Your task to perform on an android device: turn on airplane mode Image 0: 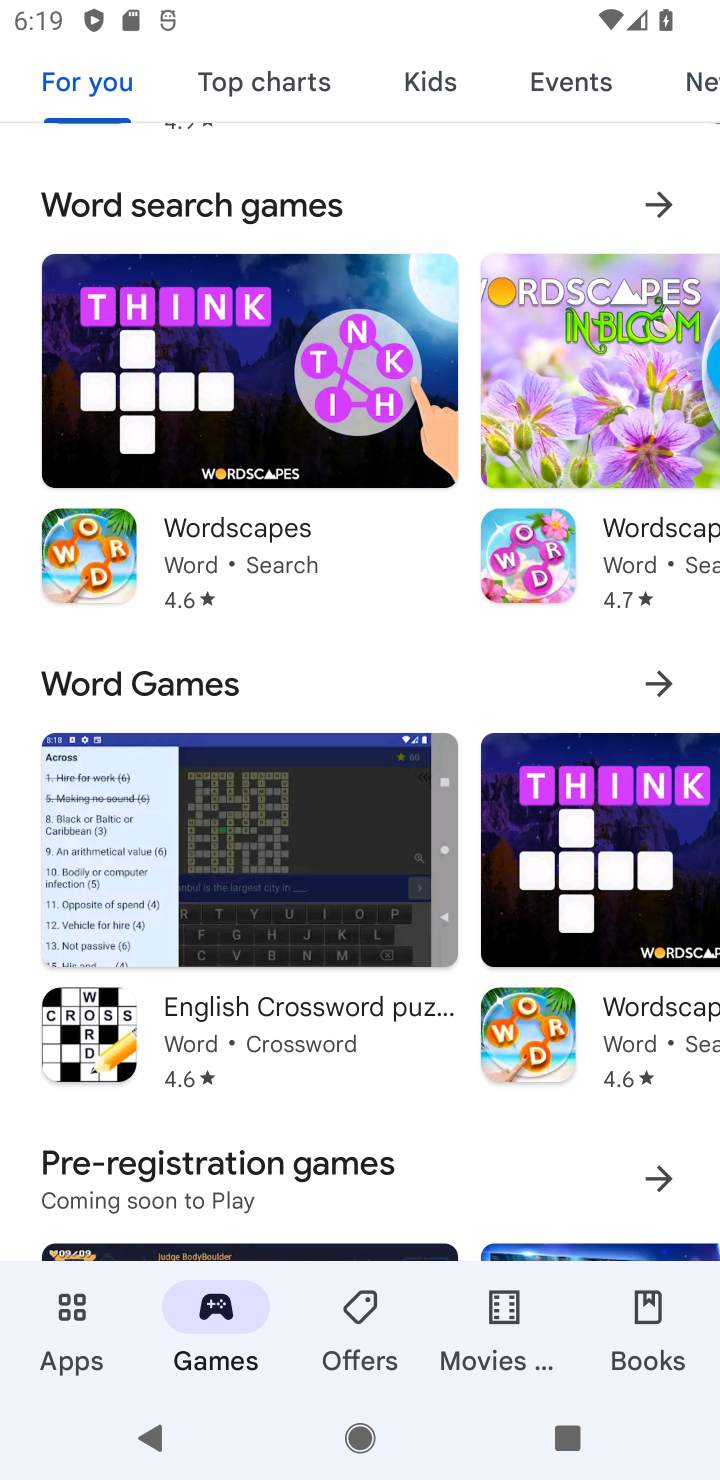
Step 0: press home button
Your task to perform on an android device: turn on airplane mode Image 1: 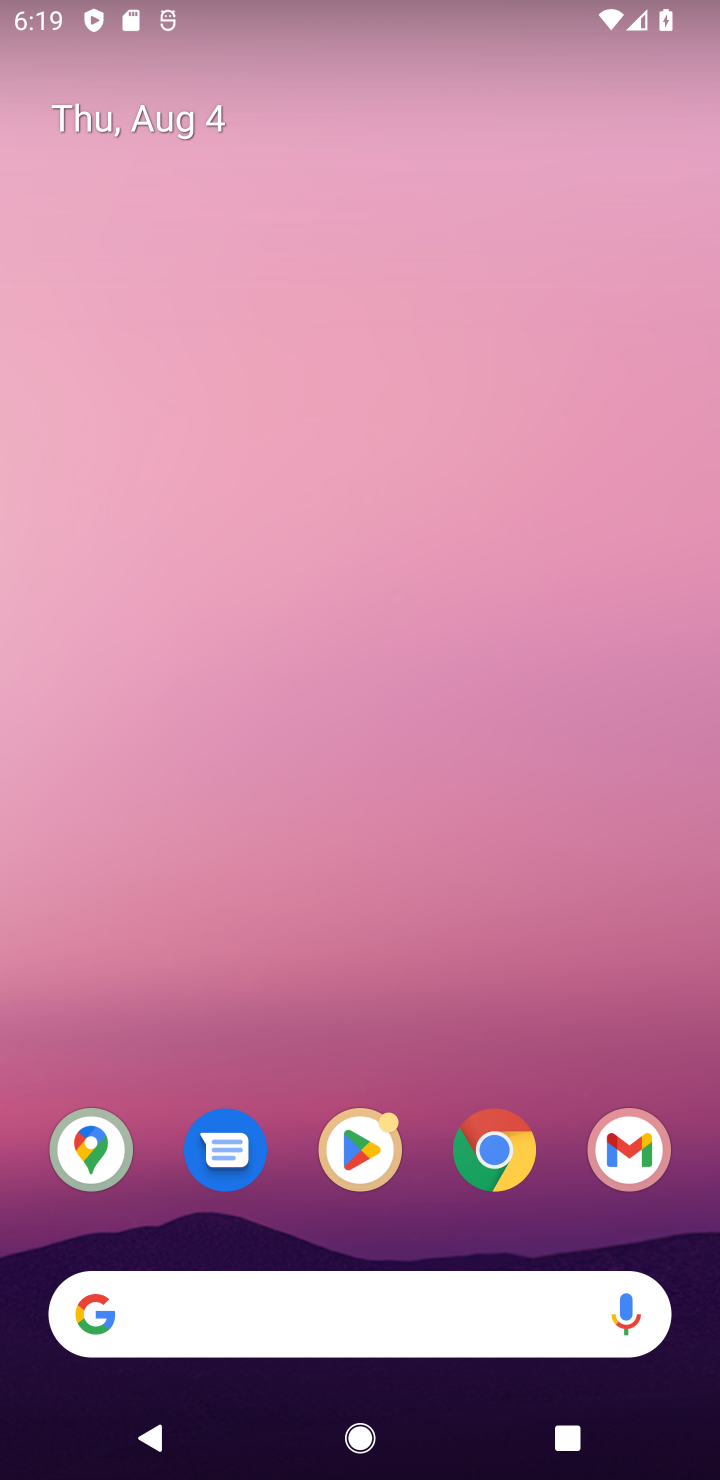
Step 1: drag from (340, 1305) to (366, 2)
Your task to perform on an android device: turn on airplane mode Image 2: 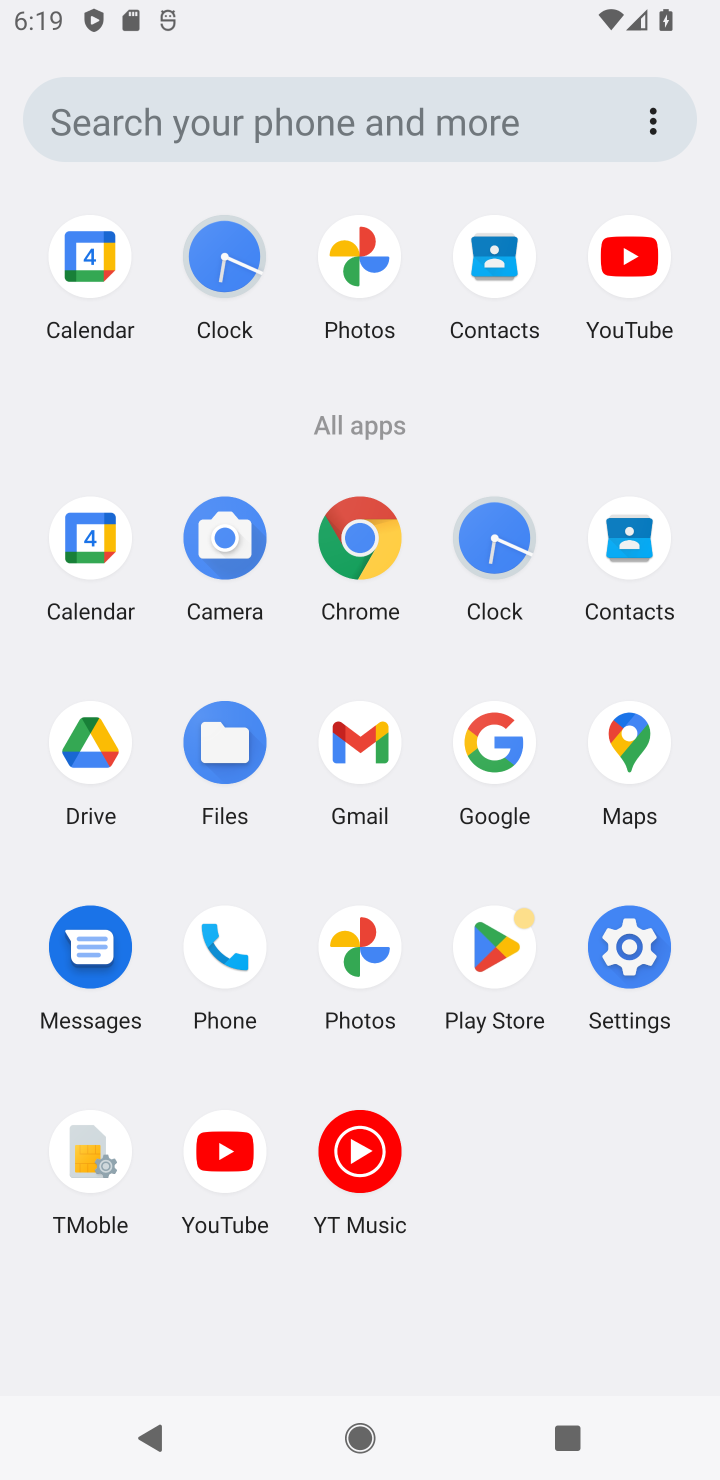
Step 2: click (619, 934)
Your task to perform on an android device: turn on airplane mode Image 3: 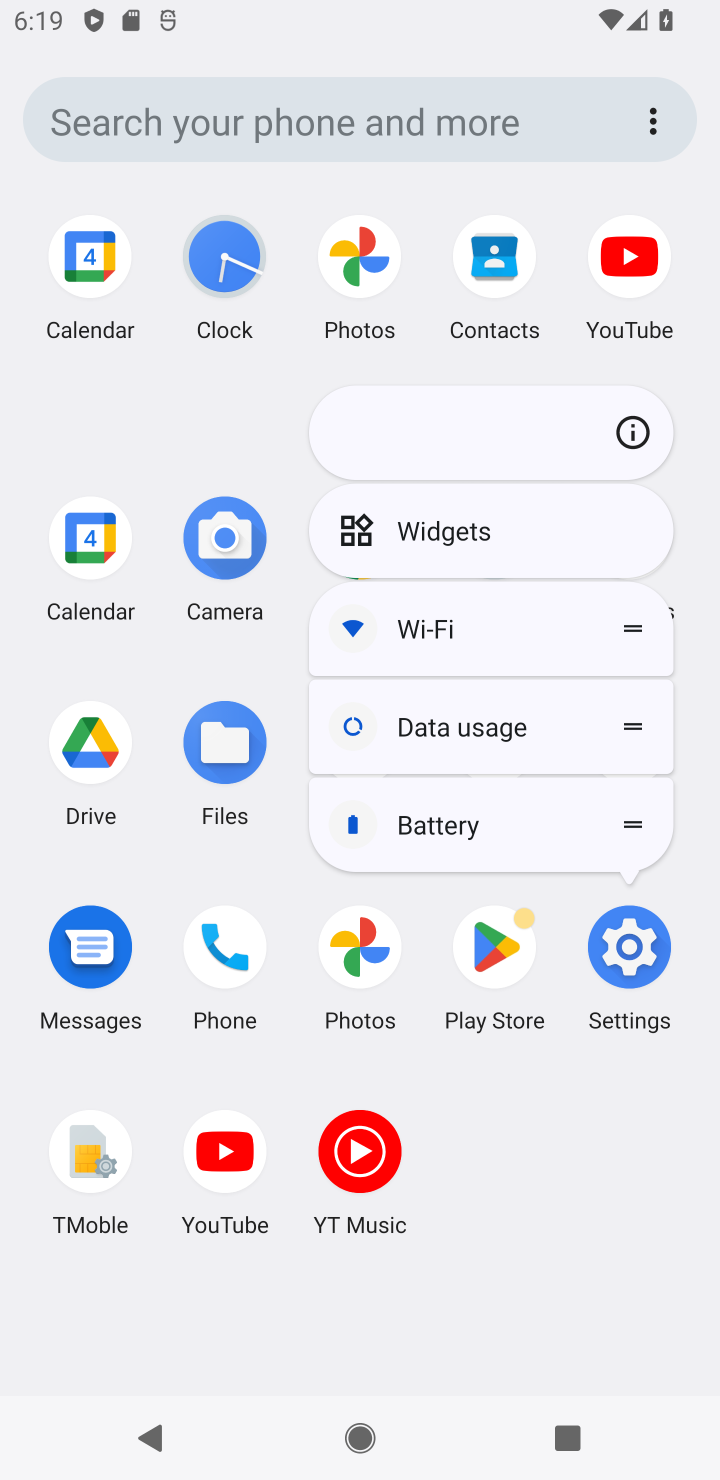
Step 3: click (654, 925)
Your task to perform on an android device: turn on airplane mode Image 4: 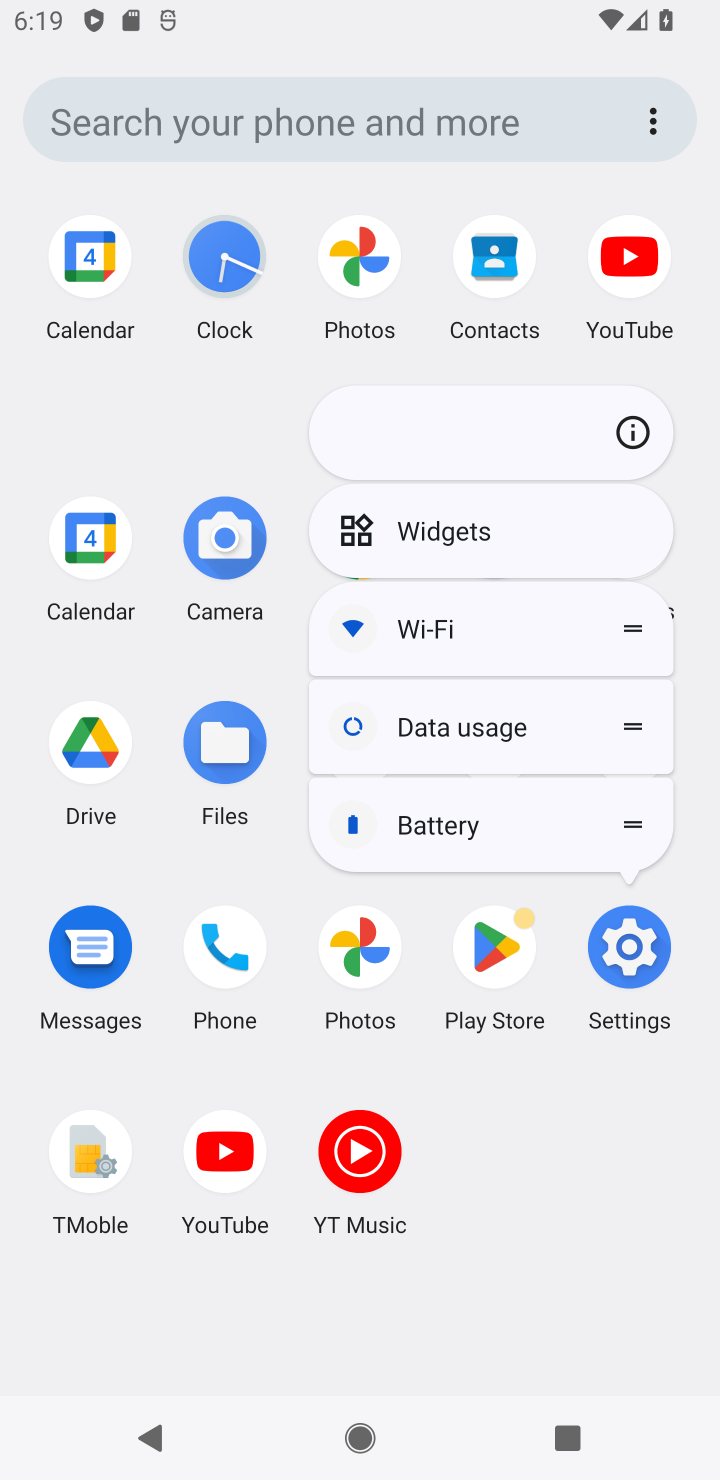
Step 4: click (635, 924)
Your task to perform on an android device: turn on airplane mode Image 5: 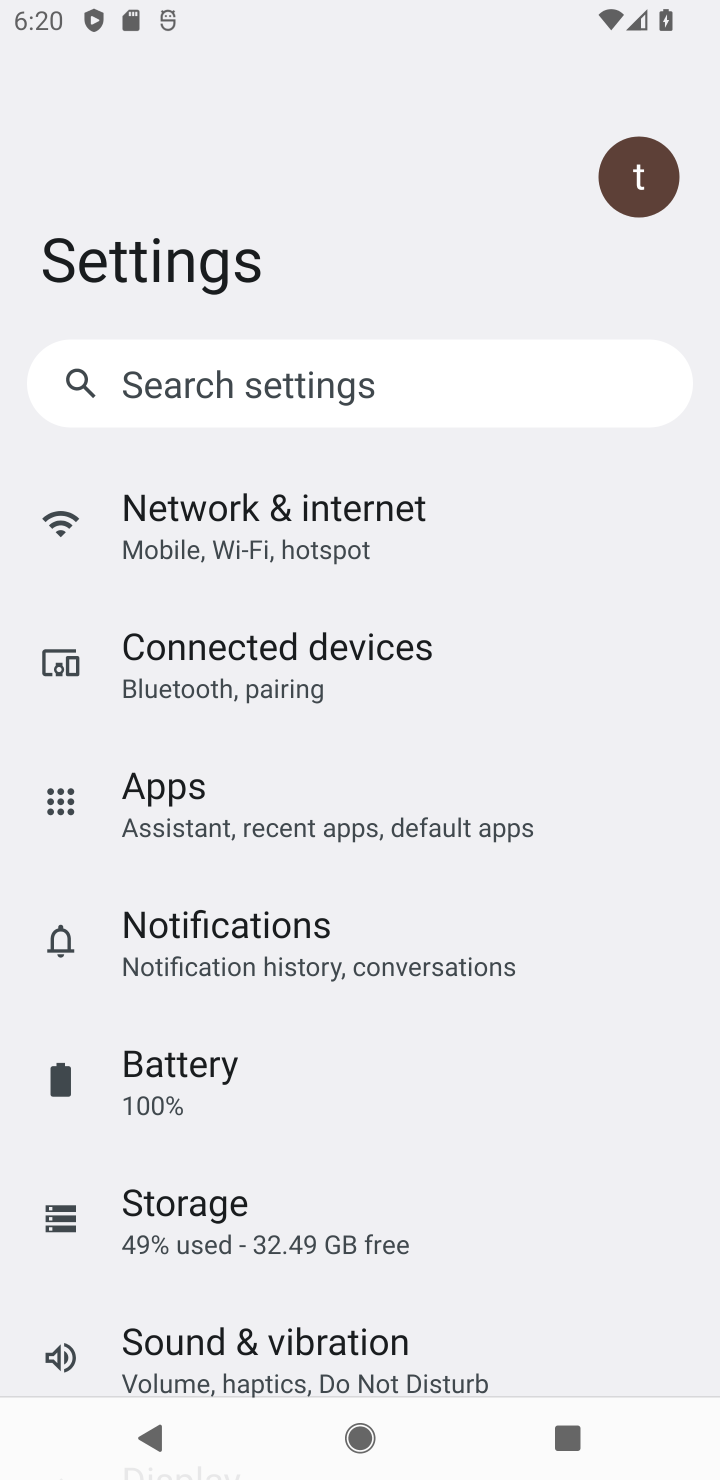
Step 5: click (232, 522)
Your task to perform on an android device: turn on airplane mode Image 6: 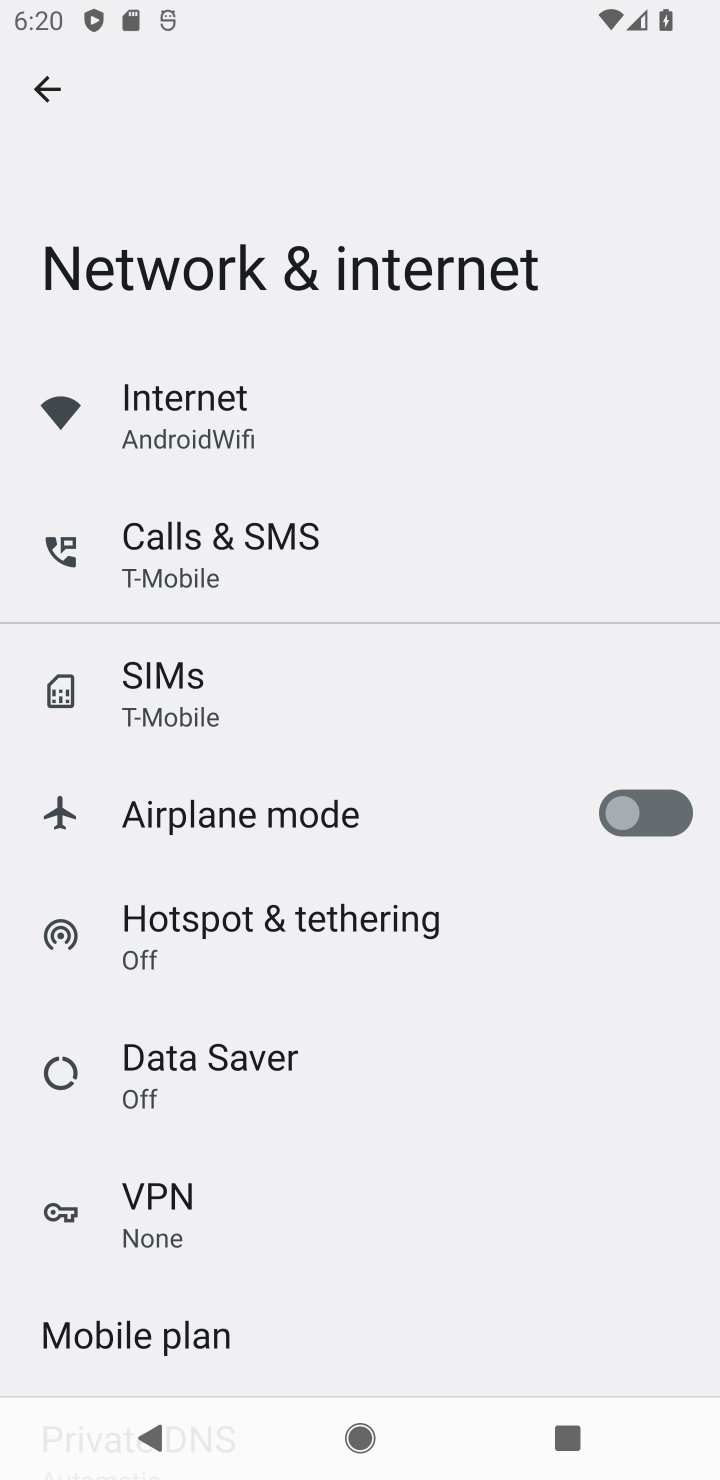
Step 6: click (657, 825)
Your task to perform on an android device: turn on airplane mode Image 7: 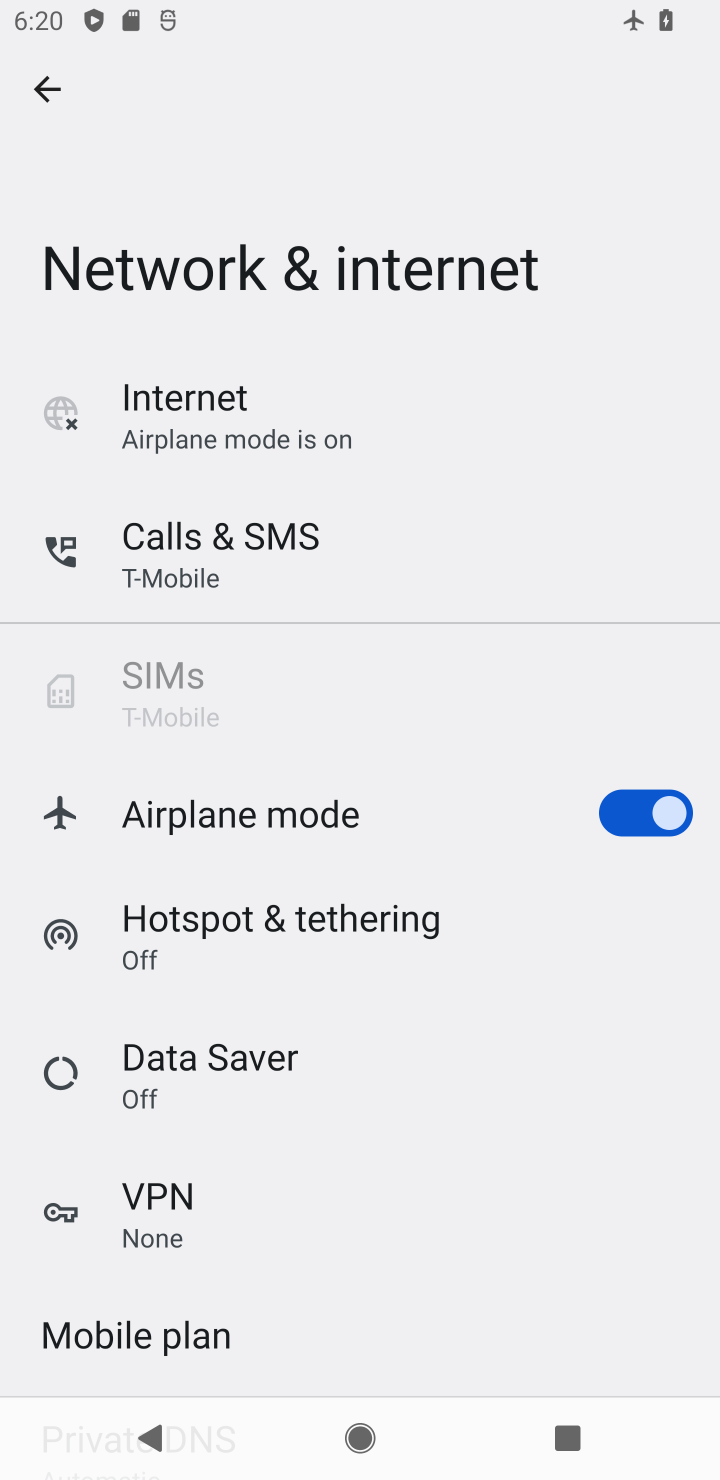
Step 7: task complete